Your task to perform on an android device: Open network settings Image 0: 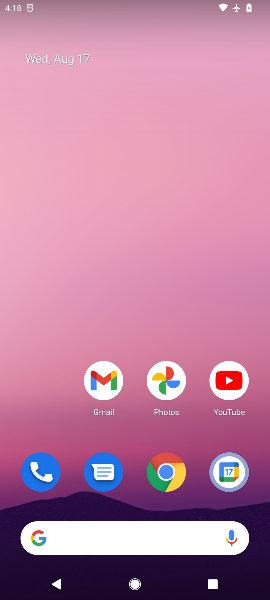
Step 0: drag from (134, 509) to (186, 13)
Your task to perform on an android device: Open network settings Image 1: 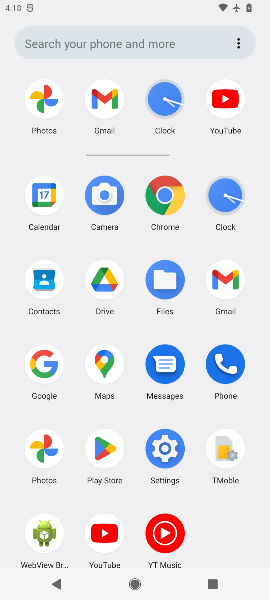
Step 1: click (164, 456)
Your task to perform on an android device: Open network settings Image 2: 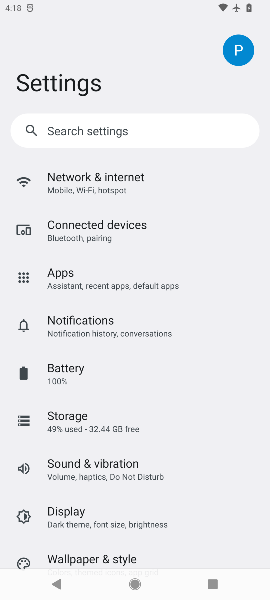
Step 2: click (102, 191)
Your task to perform on an android device: Open network settings Image 3: 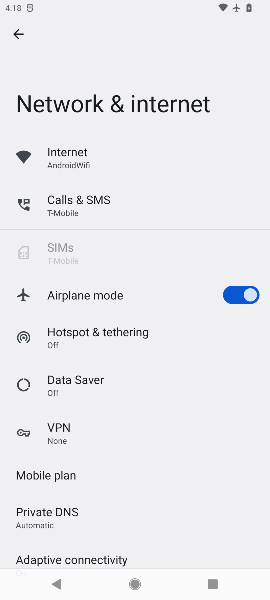
Step 3: task complete